Your task to perform on an android device: search for starred emails in the gmail app Image 0: 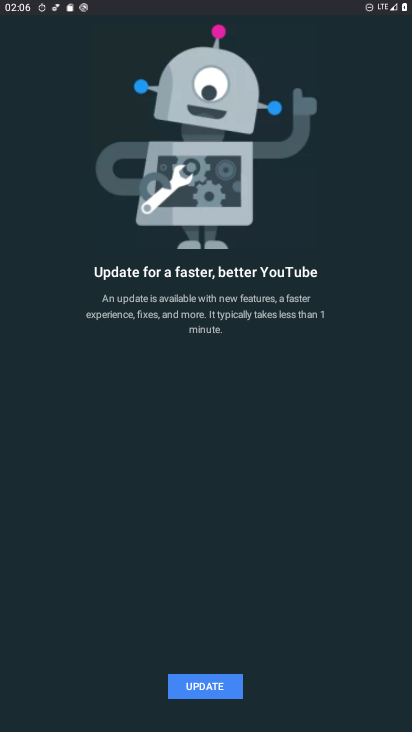
Step 0: press home button
Your task to perform on an android device: search for starred emails in the gmail app Image 1: 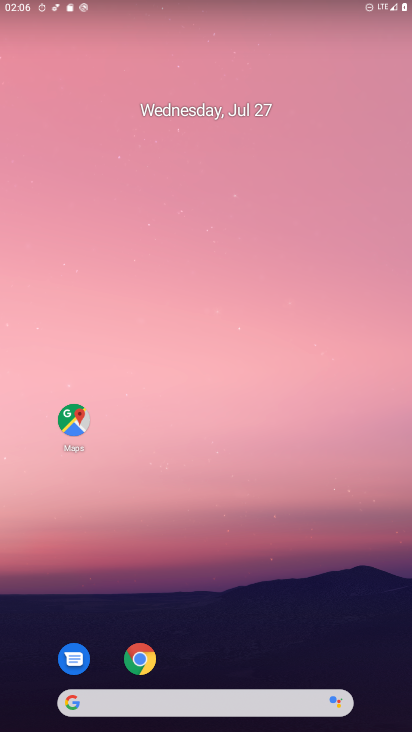
Step 1: drag from (309, 607) to (298, 72)
Your task to perform on an android device: search for starred emails in the gmail app Image 2: 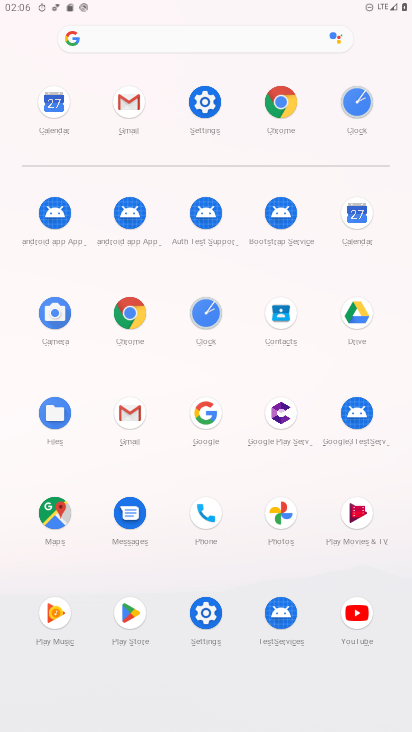
Step 2: click (135, 105)
Your task to perform on an android device: search for starred emails in the gmail app Image 3: 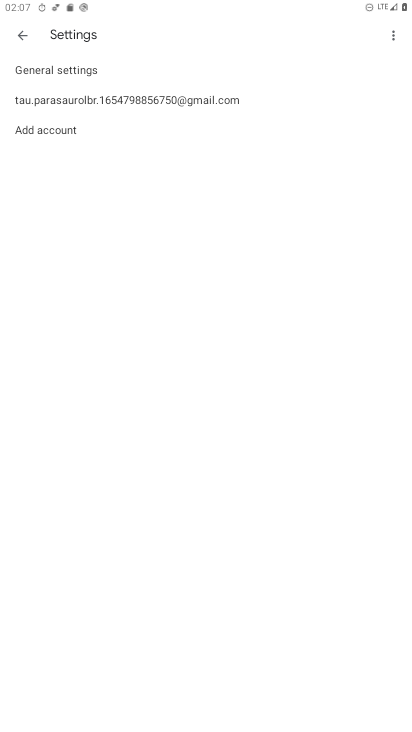
Step 3: click (18, 30)
Your task to perform on an android device: search for starred emails in the gmail app Image 4: 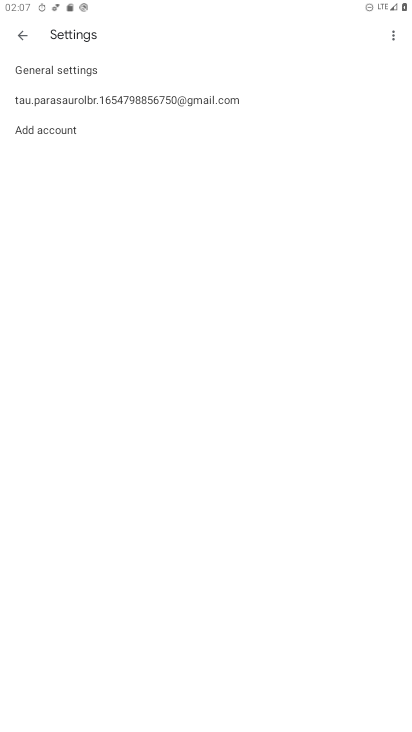
Step 4: click (21, 29)
Your task to perform on an android device: search for starred emails in the gmail app Image 5: 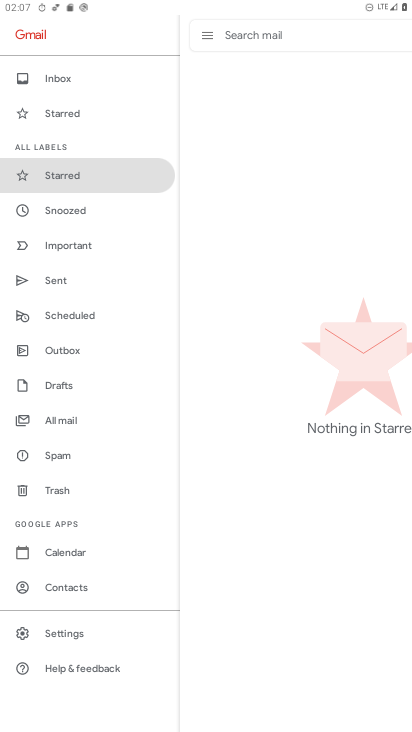
Step 5: task complete